Your task to perform on an android device: Play the latest video from the New York Times Image 0: 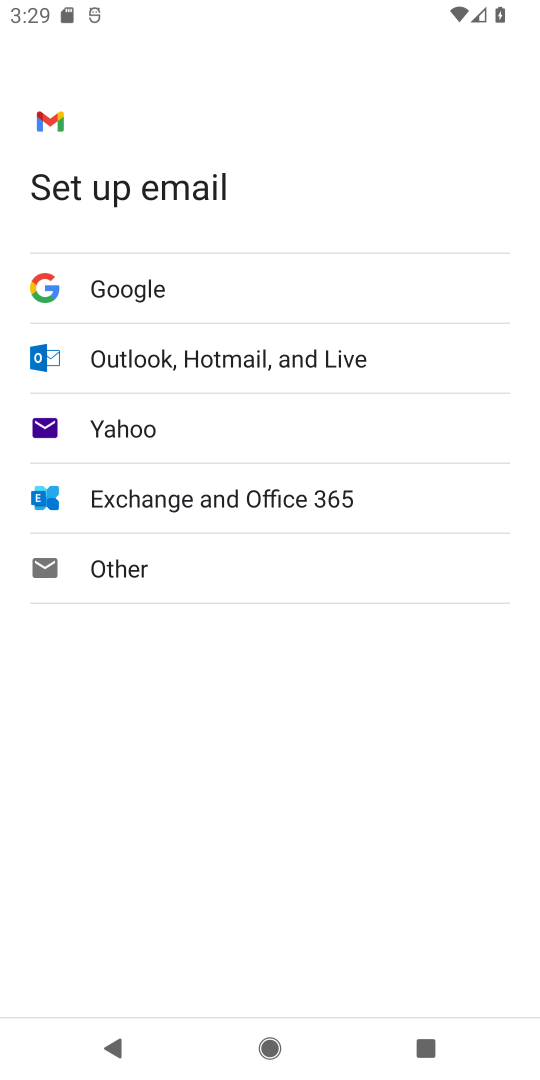
Step 0: press home button
Your task to perform on an android device: Play the latest video from the New York Times Image 1: 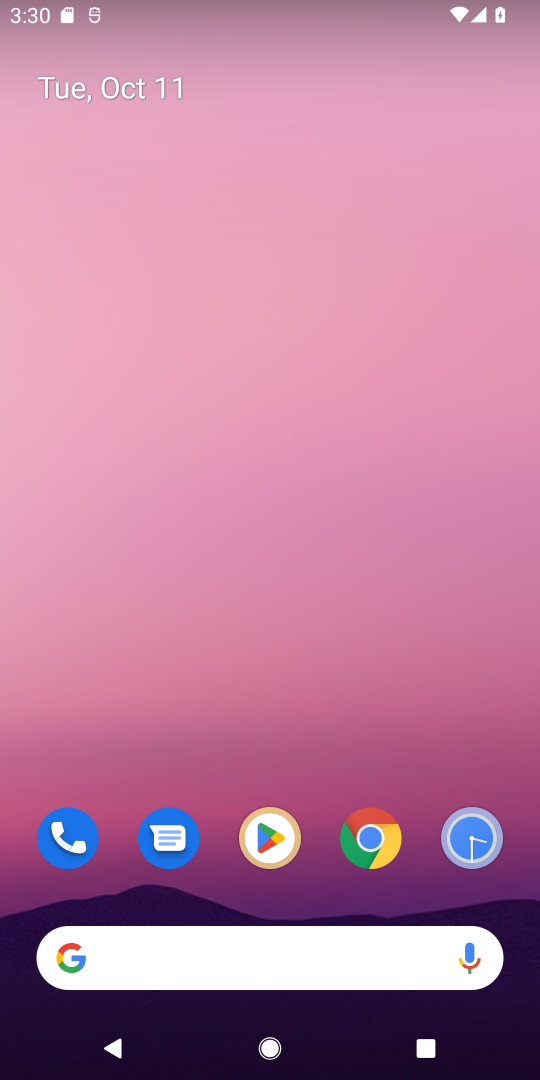
Step 1: drag from (294, 778) to (335, 282)
Your task to perform on an android device: Play the latest video from the New York Times Image 2: 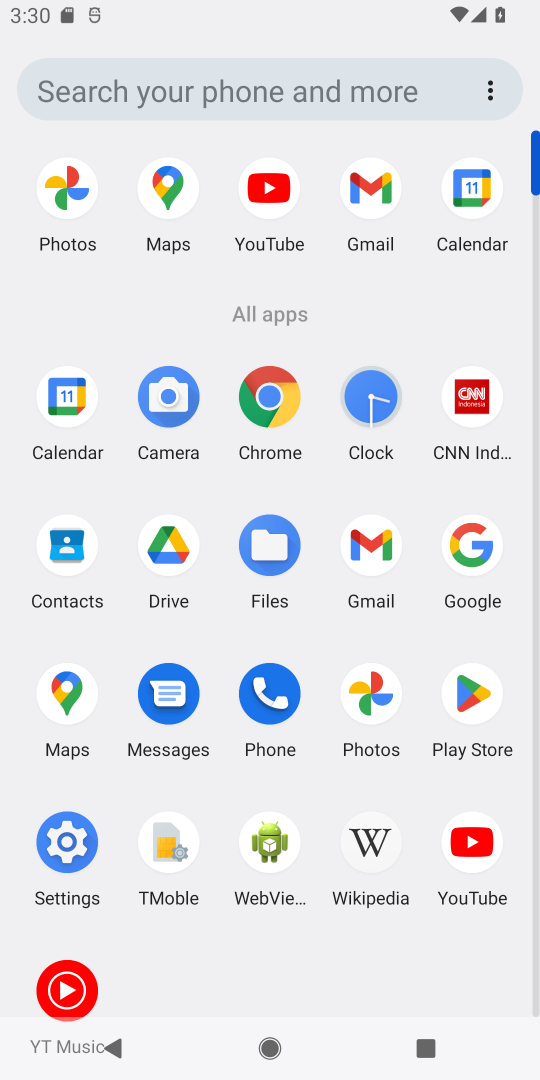
Step 2: click (241, 162)
Your task to perform on an android device: Play the latest video from the New York Times Image 3: 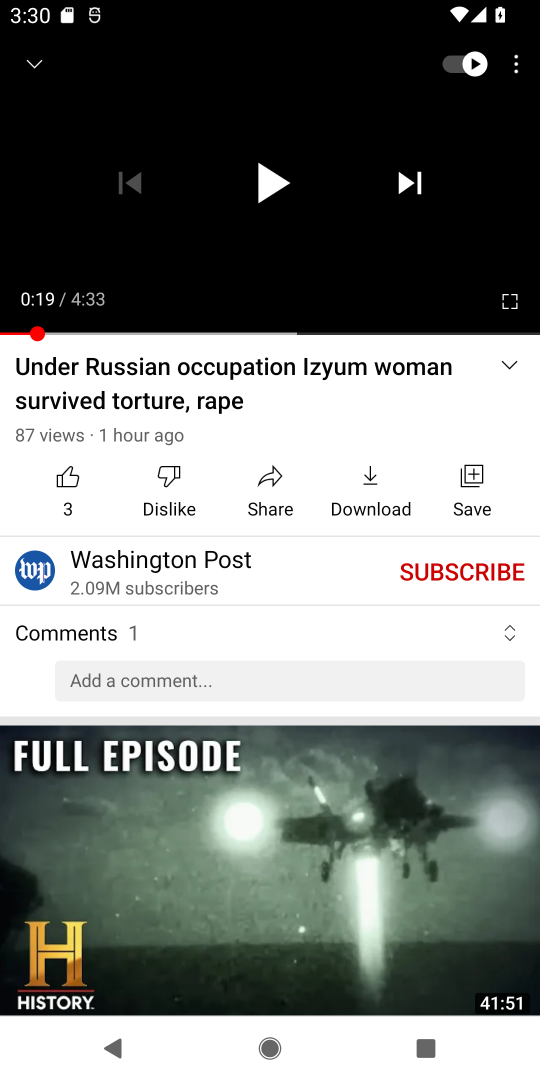
Step 3: drag from (333, 263) to (372, 827)
Your task to perform on an android device: Play the latest video from the New York Times Image 4: 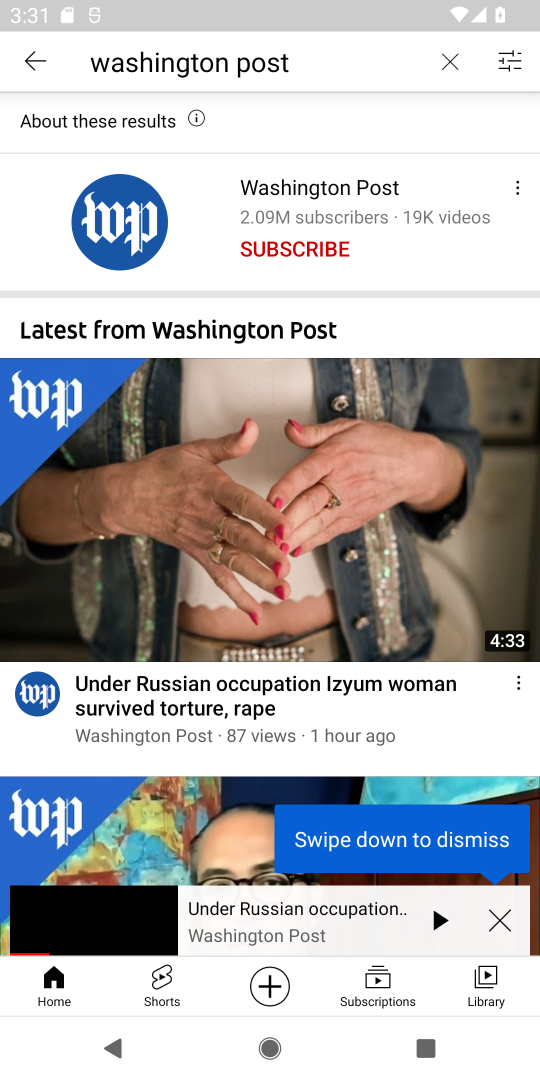
Step 4: click (508, 914)
Your task to perform on an android device: Play the latest video from the New York Times Image 5: 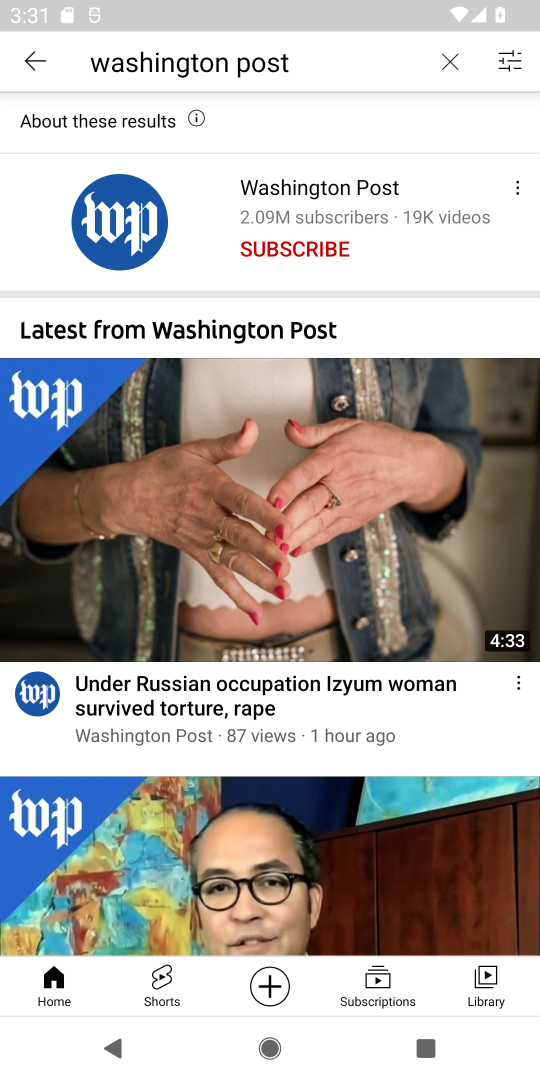
Step 5: click (435, 59)
Your task to perform on an android device: Play the latest video from the New York Times Image 6: 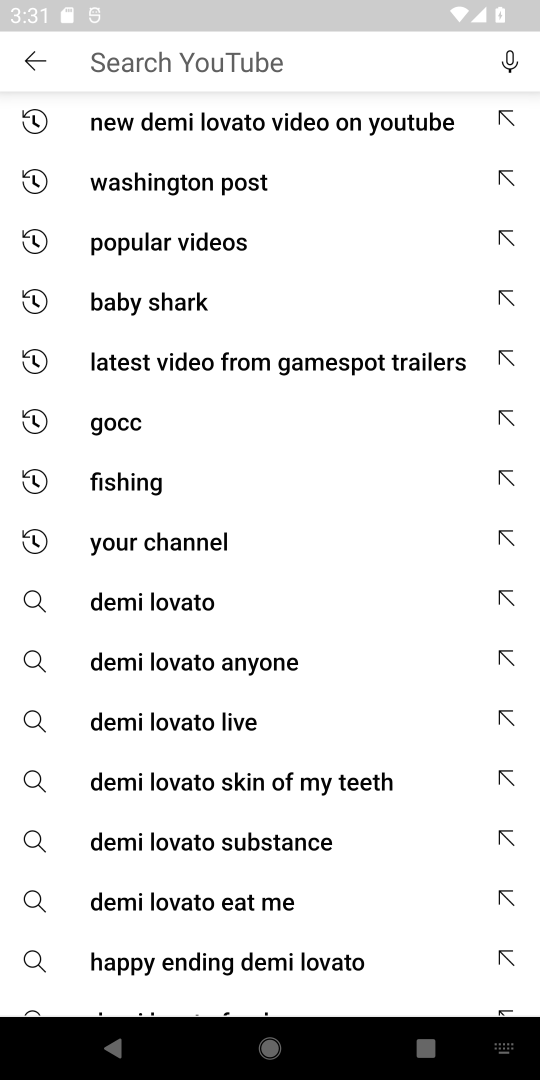
Step 6: type "New York Times"
Your task to perform on an android device: Play the latest video from the New York Times Image 7: 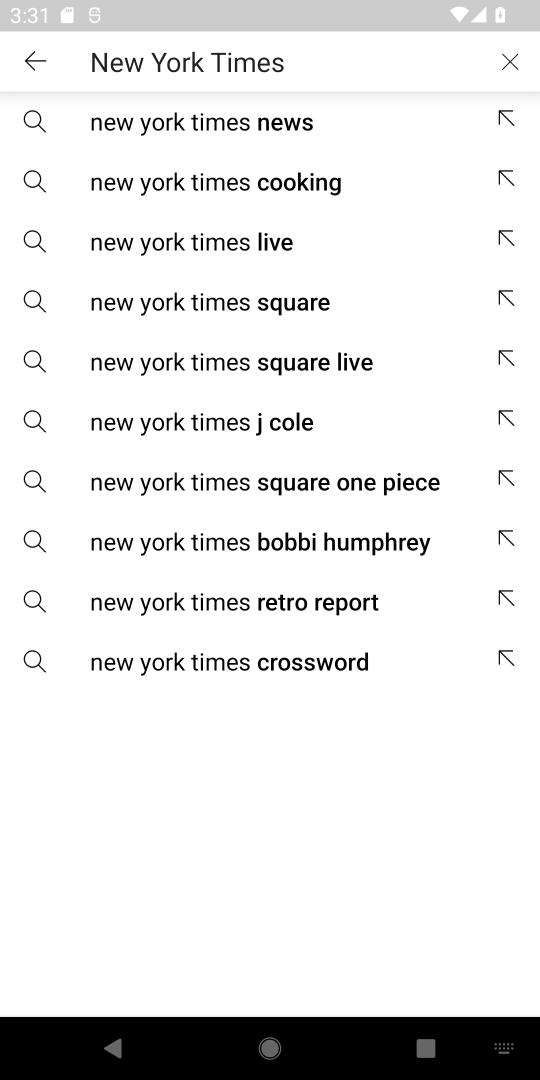
Step 7: click (290, 129)
Your task to perform on an android device: Play the latest video from the New York Times Image 8: 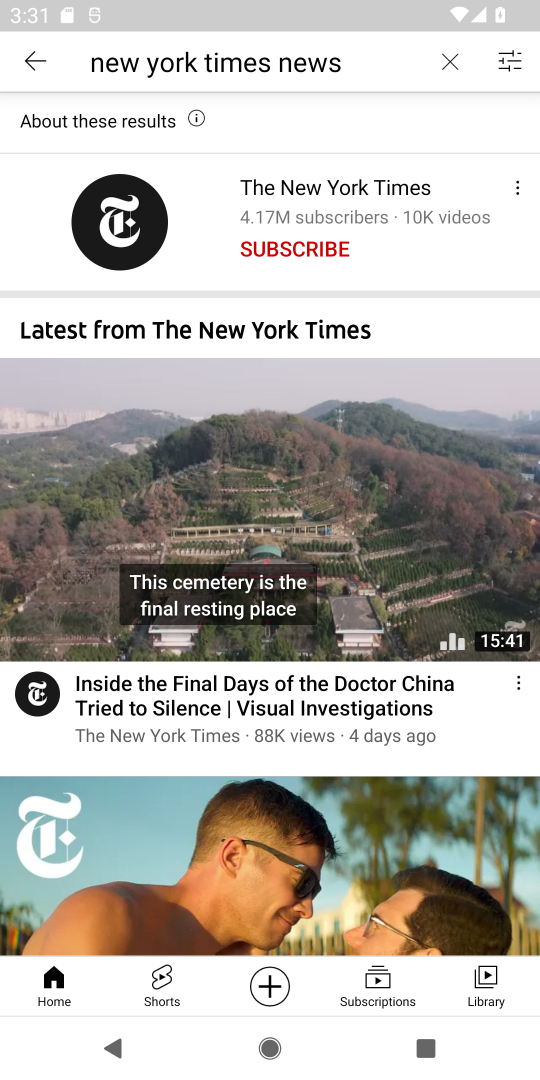
Step 8: click (293, 550)
Your task to perform on an android device: Play the latest video from the New York Times Image 9: 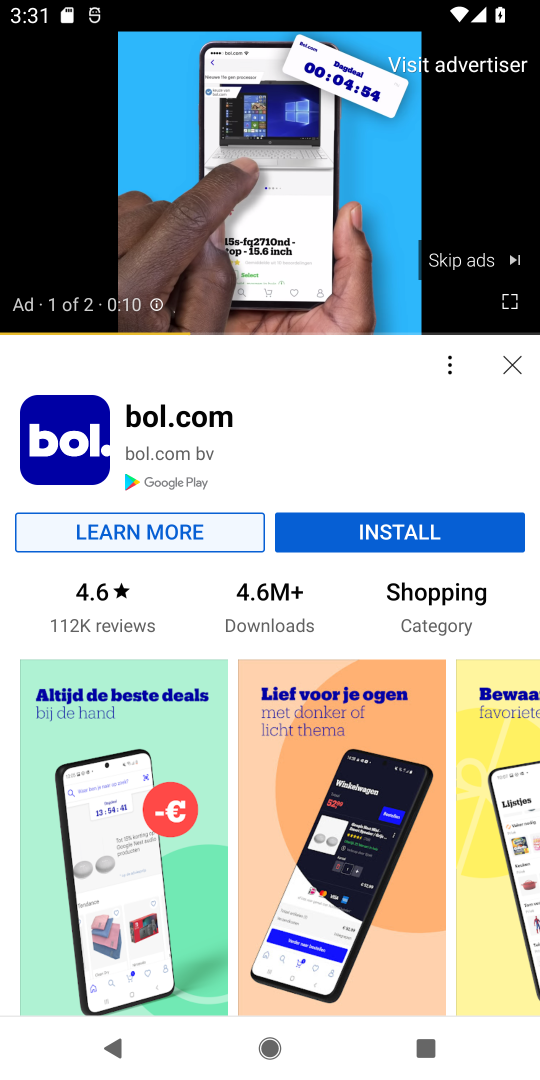
Step 9: click (466, 264)
Your task to perform on an android device: Play the latest video from the New York Times Image 10: 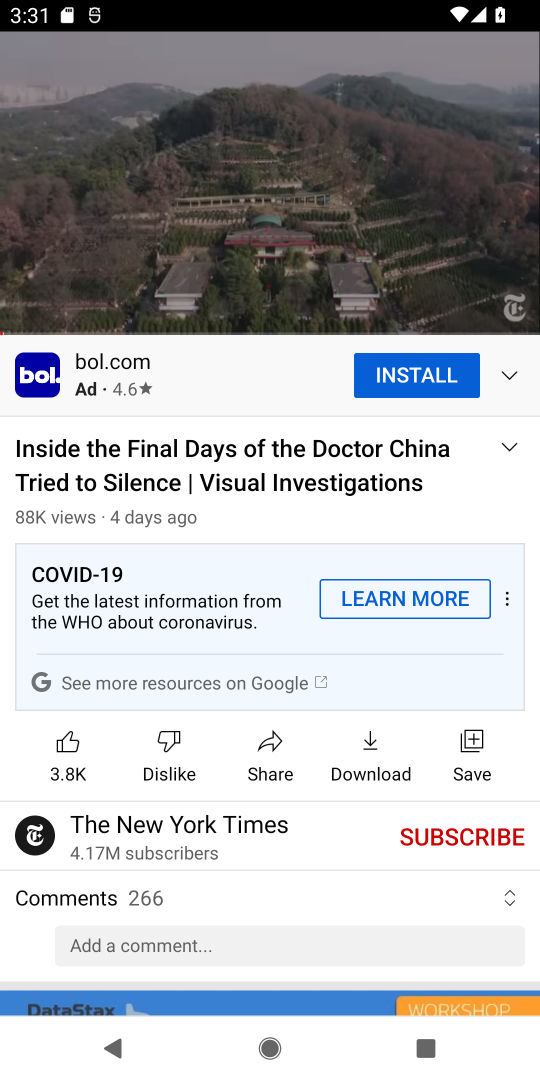
Step 10: click (249, 188)
Your task to perform on an android device: Play the latest video from the New York Times Image 11: 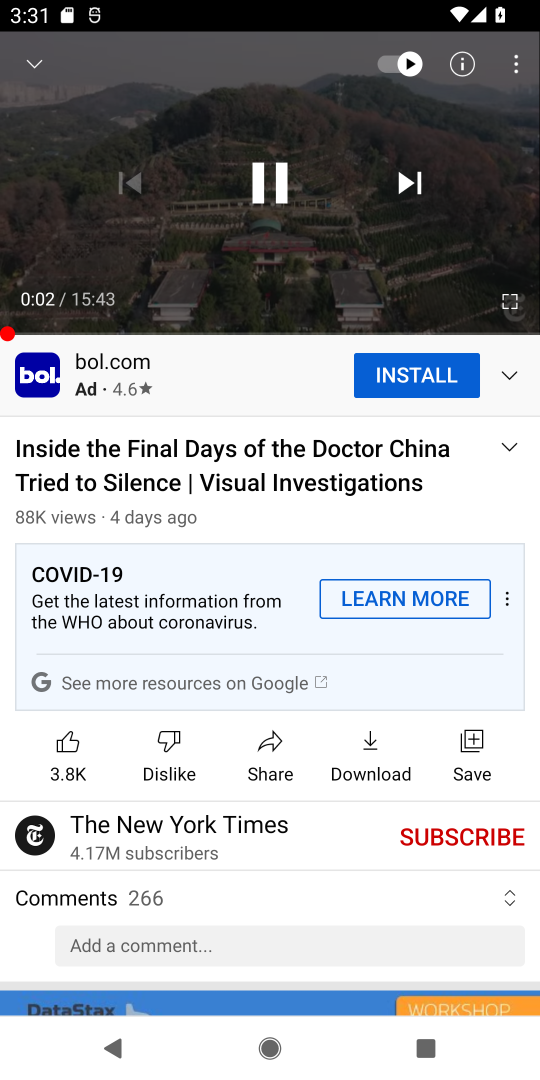
Step 11: click (263, 186)
Your task to perform on an android device: Play the latest video from the New York Times Image 12: 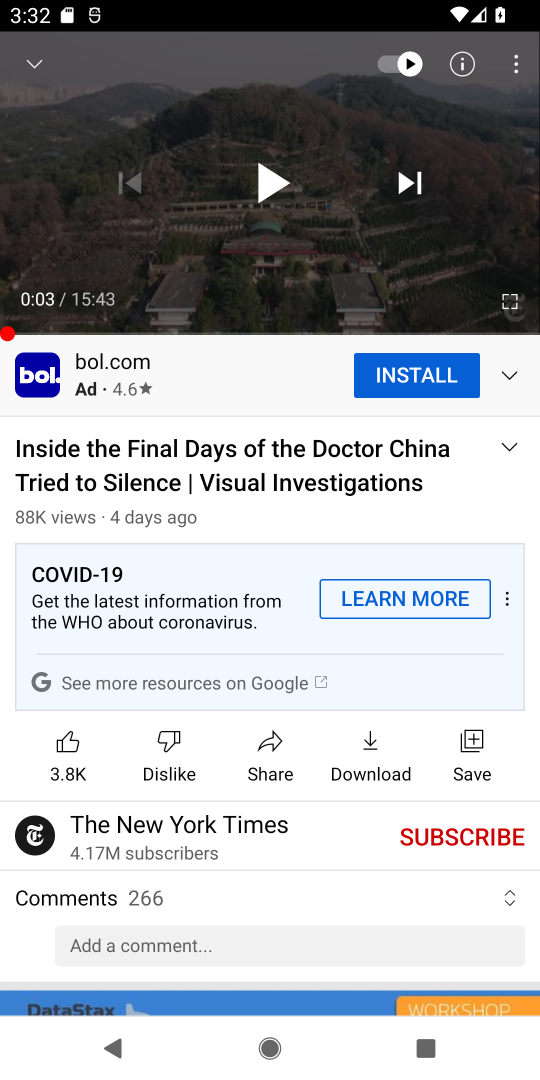
Step 12: task complete